Your task to perform on an android device: open app "DoorDash - Food Delivery" (install if not already installed) and enter user name: "Richard@outlook.com" and password: "informally" Image 0: 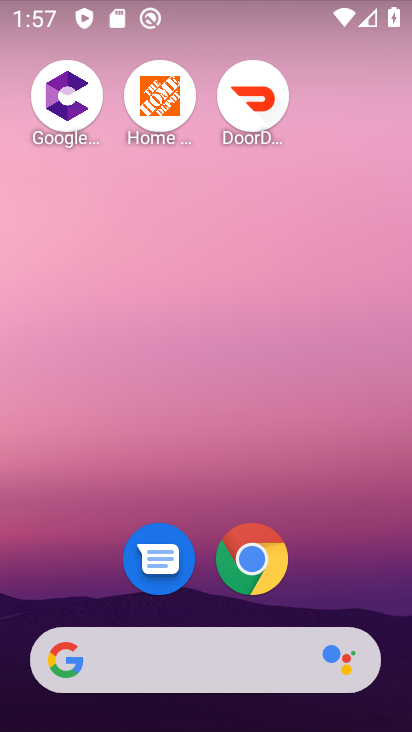
Step 0: drag from (263, 187) to (259, 86)
Your task to perform on an android device: open app "DoorDash - Food Delivery" (install if not already installed) and enter user name: "Richard@outlook.com" and password: "informally" Image 1: 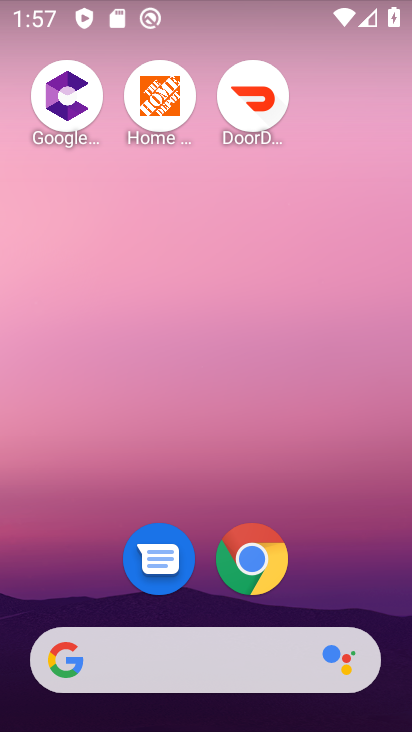
Step 1: drag from (254, 522) to (299, 150)
Your task to perform on an android device: open app "DoorDash - Food Delivery" (install if not already installed) and enter user name: "Richard@outlook.com" and password: "informally" Image 2: 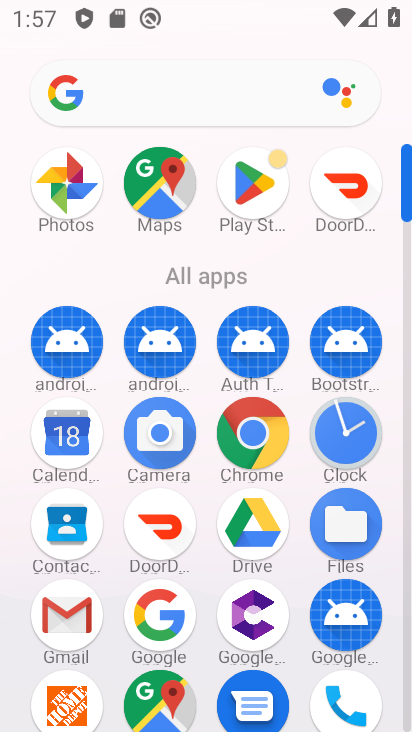
Step 2: click (246, 193)
Your task to perform on an android device: open app "DoorDash - Food Delivery" (install if not already installed) and enter user name: "Richard@outlook.com" and password: "informally" Image 3: 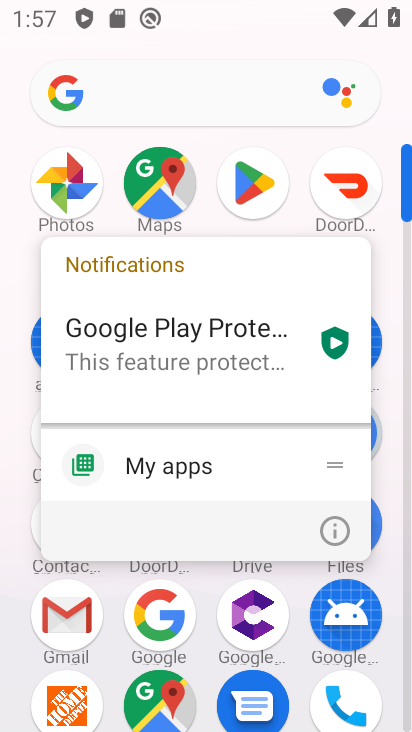
Step 3: click (246, 177)
Your task to perform on an android device: open app "DoorDash - Food Delivery" (install if not already installed) and enter user name: "Richard@outlook.com" and password: "informally" Image 4: 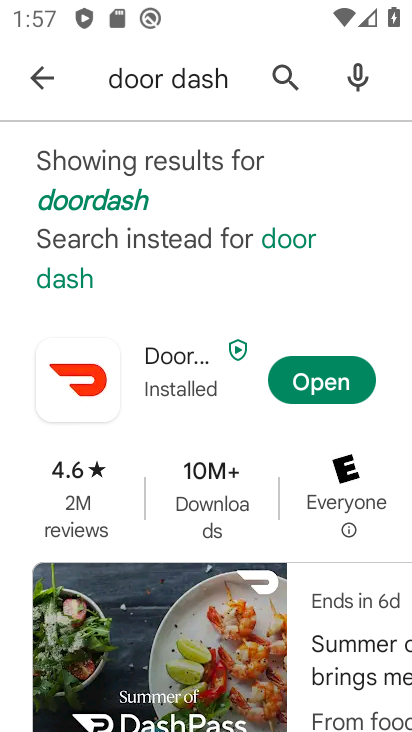
Step 4: click (281, 66)
Your task to perform on an android device: open app "DoorDash - Food Delivery" (install if not already installed) and enter user name: "Richard@outlook.com" and password: "informally" Image 5: 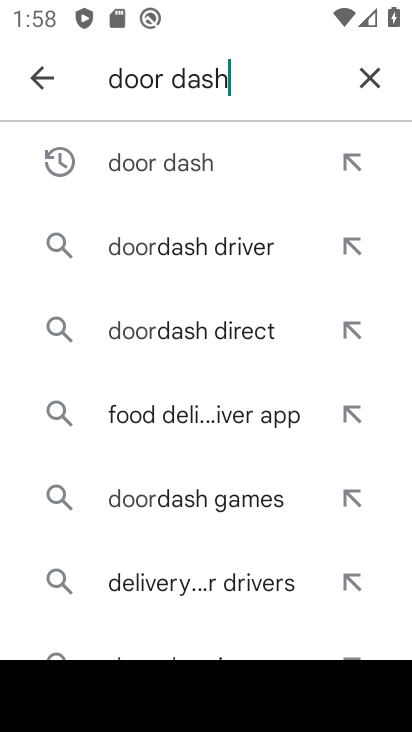
Step 5: click (172, 160)
Your task to perform on an android device: open app "DoorDash - Food Delivery" (install if not already installed) and enter user name: "Richard@outlook.com" and password: "informally" Image 6: 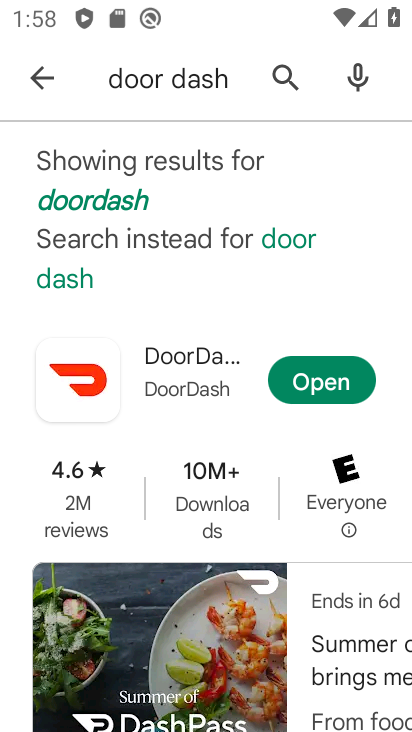
Step 6: drag from (181, 675) to (320, 92)
Your task to perform on an android device: open app "DoorDash - Food Delivery" (install if not already installed) and enter user name: "Richard@outlook.com" and password: "informally" Image 7: 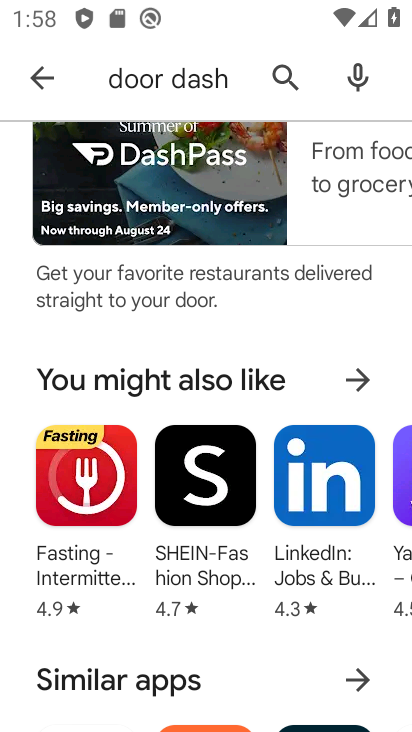
Step 7: drag from (190, 607) to (271, 185)
Your task to perform on an android device: open app "DoorDash - Food Delivery" (install if not already installed) and enter user name: "Richard@outlook.com" and password: "informally" Image 8: 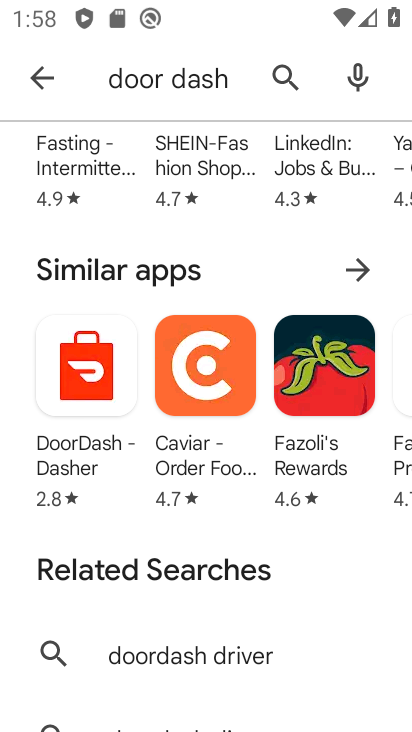
Step 8: drag from (163, 197) to (156, 723)
Your task to perform on an android device: open app "DoorDash - Food Delivery" (install if not already installed) and enter user name: "Richard@outlook.com" and password: "informally" Image 9: 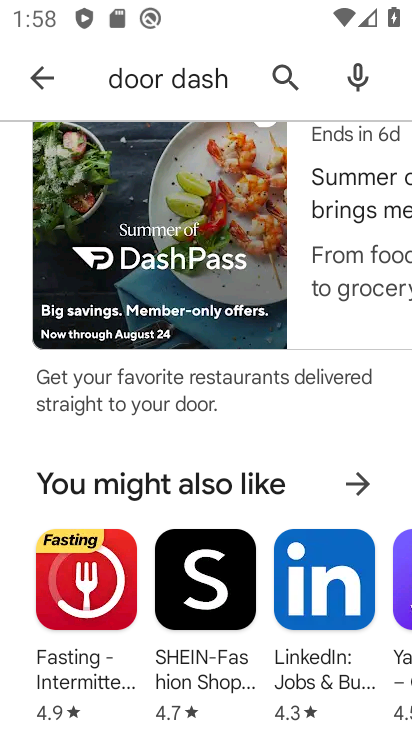
Step 9: drag from (250, 179) to (207, 694)
Your task to perform on an android device: open app "DoorDash - Food Delivery" (install if not already installed) and enter user name: "Richard@outlook.com" and password: "informally" Image 10: 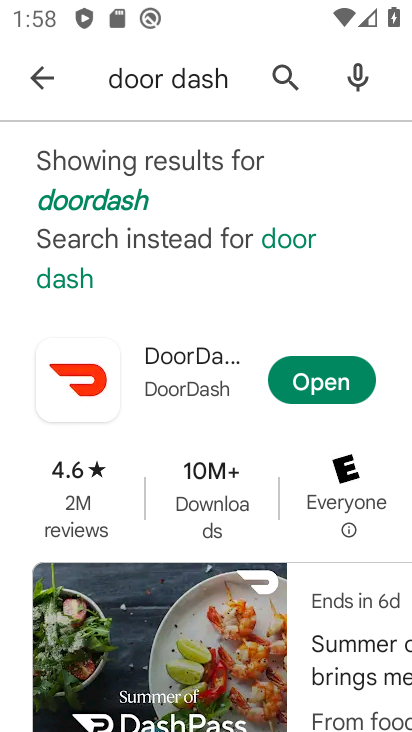
Step 10: click (322, 383)
Your task to perform on an android device: open app "DoorDash - Food Delivery" (install if not already installed) and enter user name: "Richard@outlook.com" and password: "informally" Image 11: 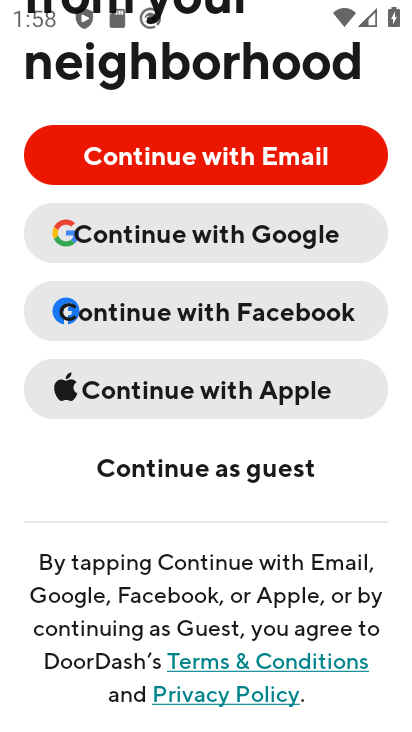
Step 11: click (213, 167)
Your task to perform on an android device: open app "DoorDash - Food Delivery" (install if not already installed) and enter user name: "Richard@outlook.com" and password: "informally" Image 12: 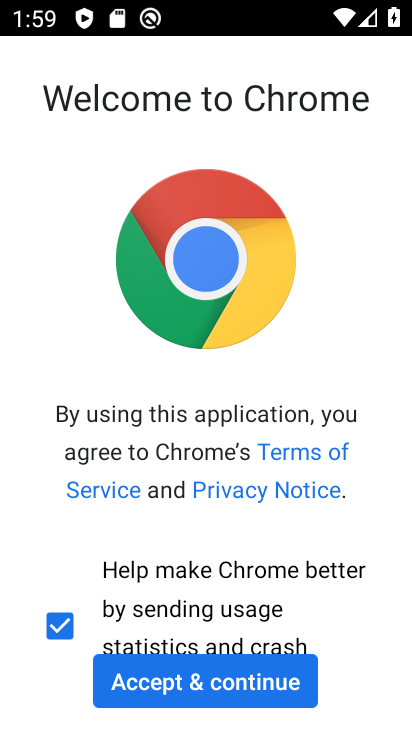
Step 12: press back button
Your task to perform on an android device: open app "DoorDash - Food Delivery" (install if not already installed) and enter user name: "Richard@outlook.com" and password: "informally" Image 13: 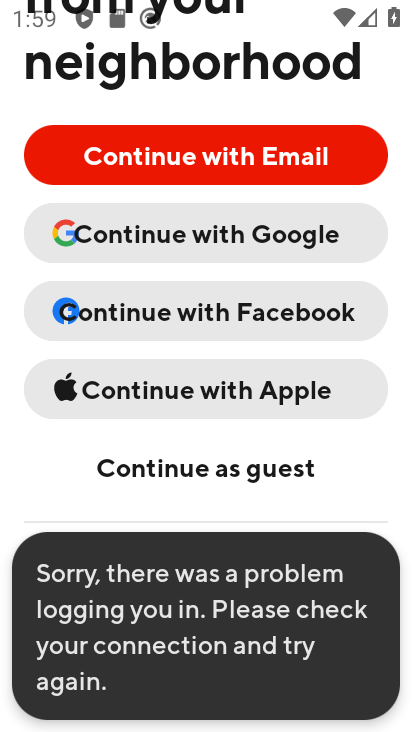
Step 13: click (200, 221)
Your task to perform on an android device: open app "DoorDash - Food Delivery" (install if not already installed) and enter user name: "Richard@outlook.com" and password: "informally" Image 14: 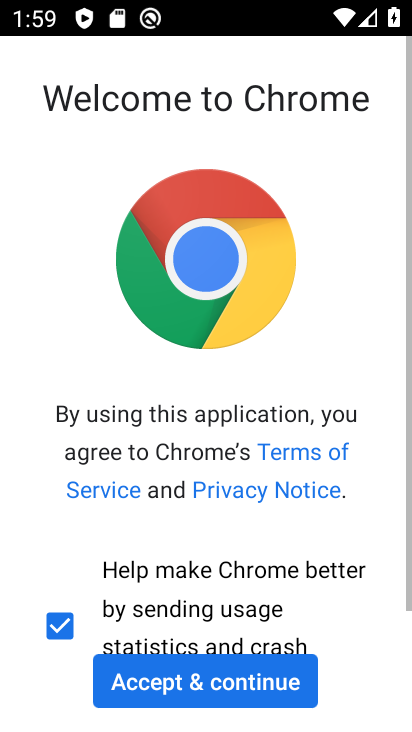
Step 14: click (164, 672)
Your task to perform on an android device: open app "DoorDash - Food Delivery" (install if not already installed) and enter user name: "Richard@outlook.com" and password: "informally" Image 15: 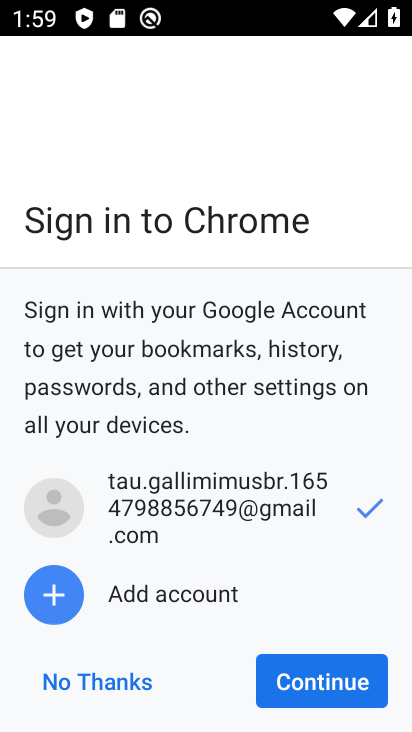
Step 15: click (309, 673)
Your task to perform on an android device: open app "DoorDash - Food Delivery" (install if not already installed) and enter user name: "Richard@outlook.com" and password: "informally" Image 16: 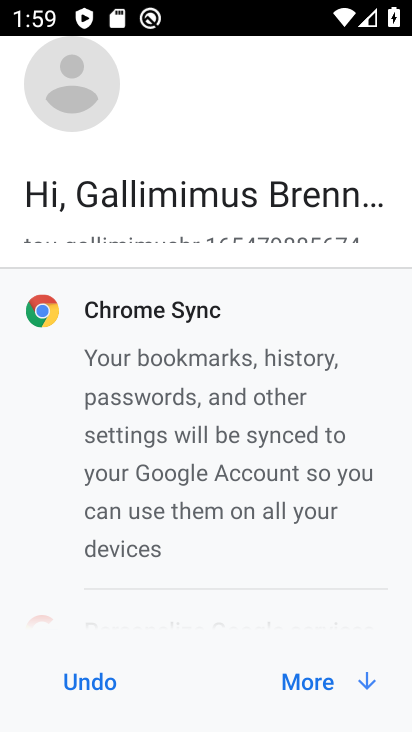
Step 16: task complete